Your task to perform on an android device: change timer sound Image 0: 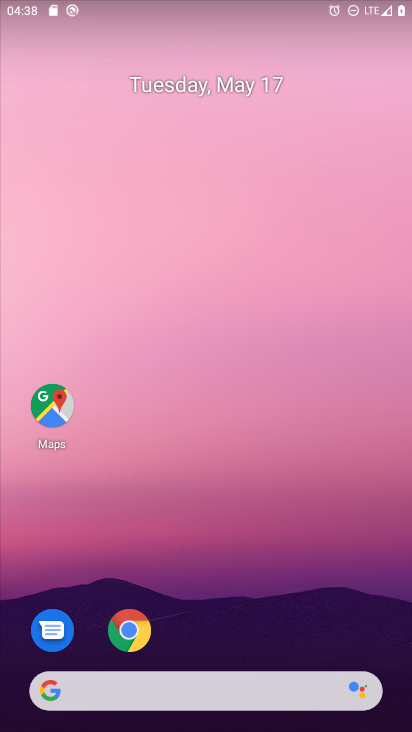
Step 0: drag from (262, 626) to (251, 91)
Your task to perform on an android device: change timer sound Image 1: 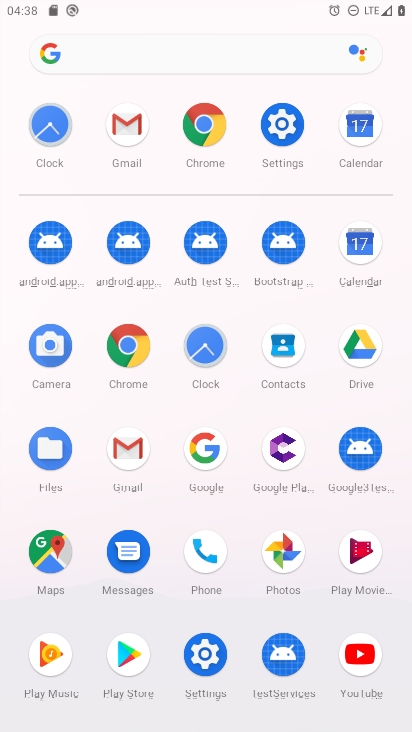
Step 1: click (276, 123)
Your task to perform on an android device: change timer sound Image 2: 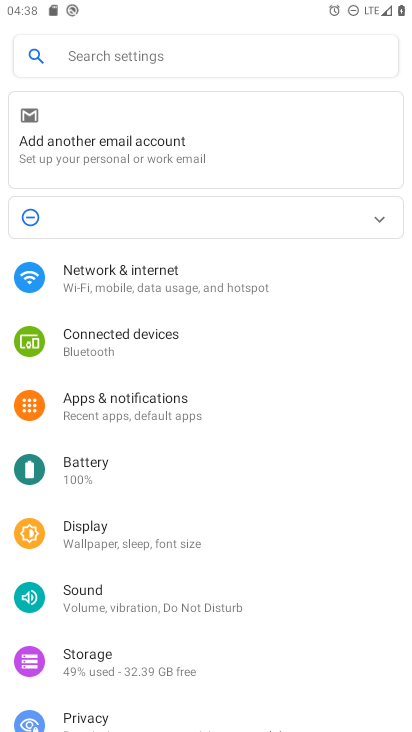
Step 2: click (84, 590)
Your task to perform on an android device: change timer sound Image 3: 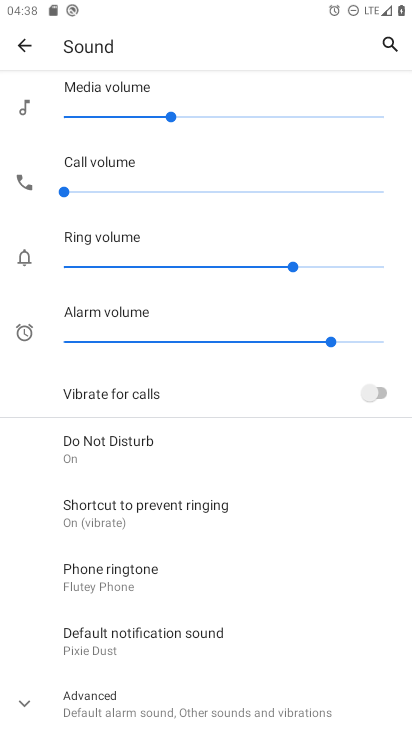
Step 3: task complete